Your task to perform on an android device: What's the weather going to be this weekend? Image 0: 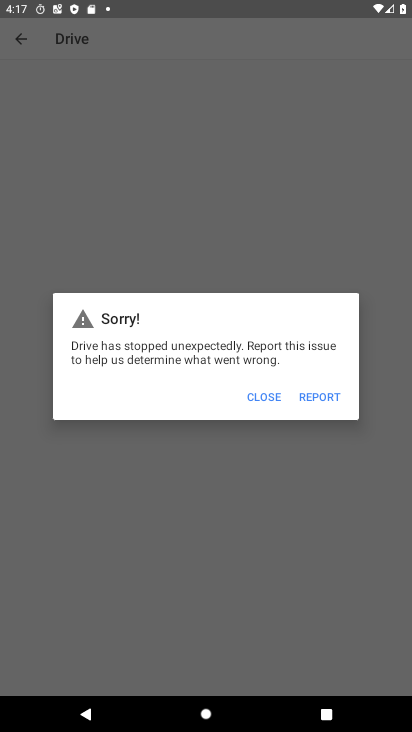
Step 0: press home button
Your task to perform on an android device: What's the weather going to be this weekend? Image 1: 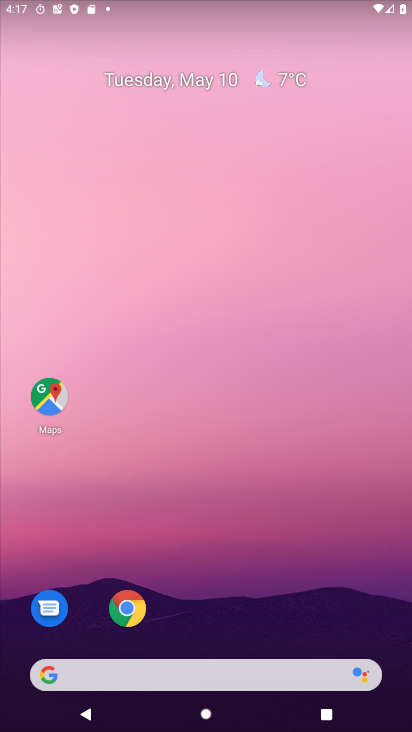
Step 1: click (299, 81)
Your task to perform on an android device: What's the weather going to be this weekend? Image 2: 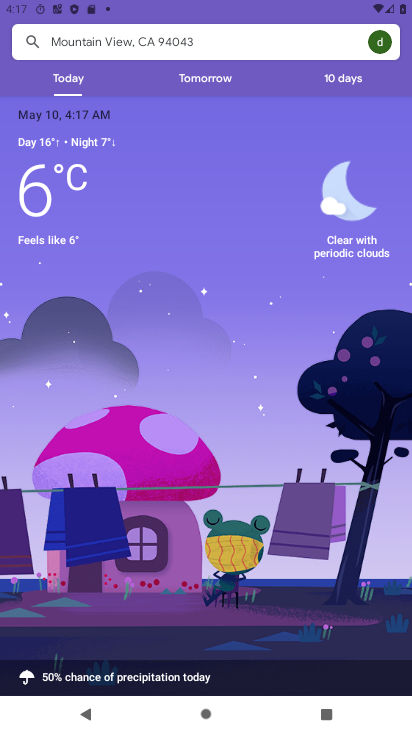
Step 2: click (340, 86)
Your task to perform on an android device: What's the weather going to be this weekend? Image 3: 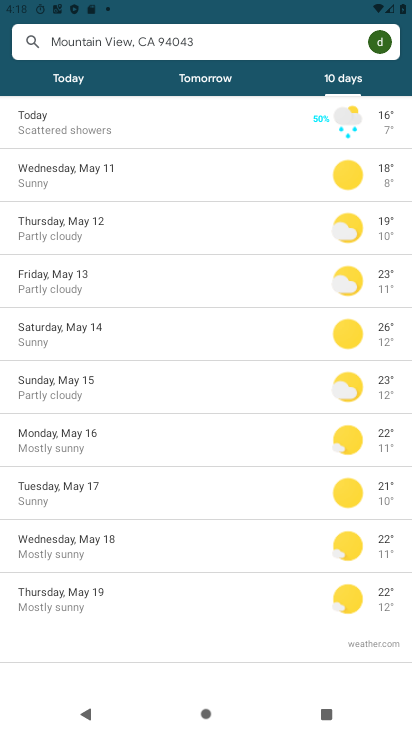
Step 3: task complete